Your task to perform on an android device: Open CNN.com Image 0: 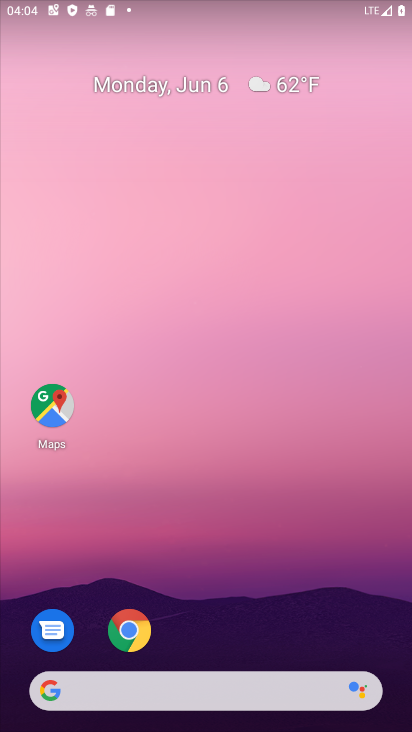
Step 0: click (126, 641)
Your task to perform on an android device: Open CNN.com Image 1: 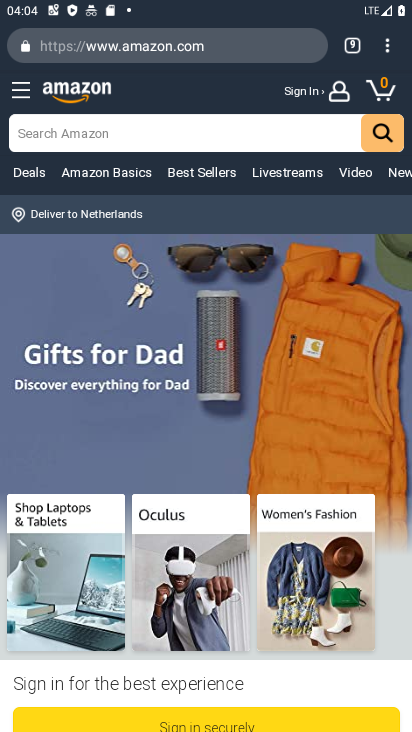
Step 1: click (200, 41)
Your task to perform on an android device: Open CNN.com Image 2: 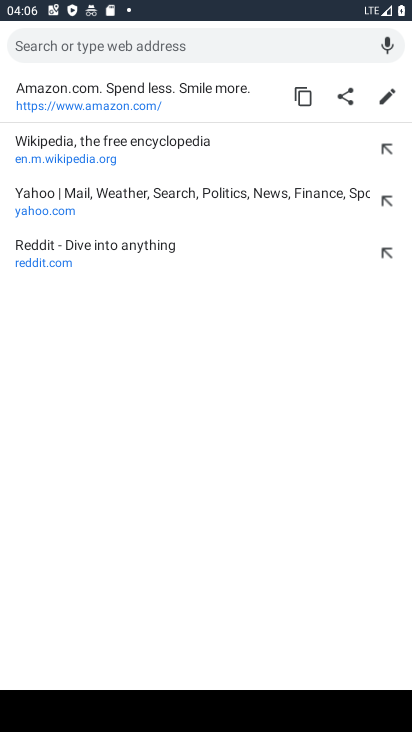
Step 2: type " CNN.com"
Your task to perform on an android device: Open CNN.com Image 3: 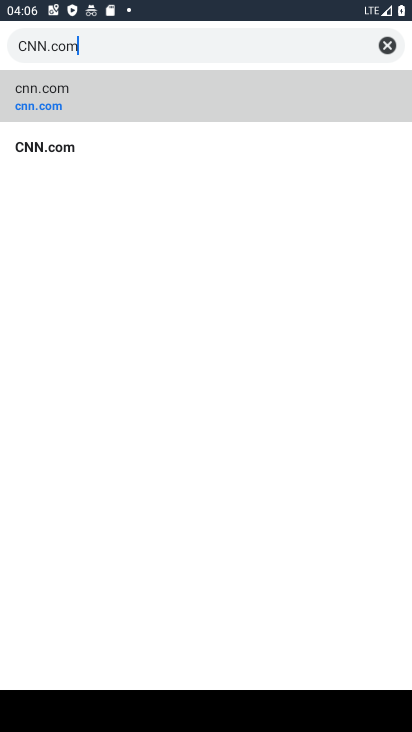
Step 3: type ""
Your task to perform on an android device: Open CNN.com Image 4: 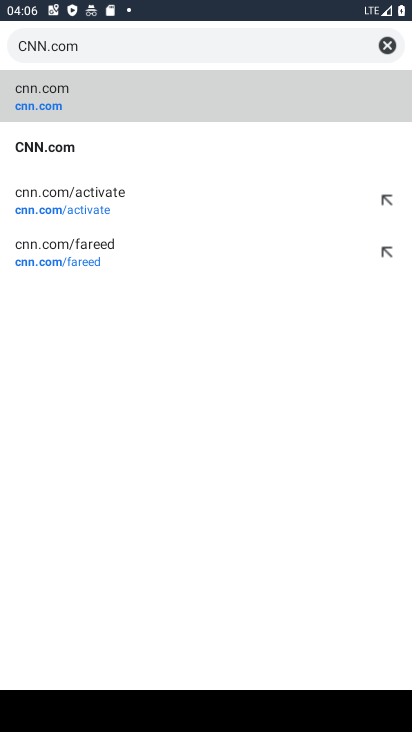
Step 4: click (133, 94)
Your task to perform on an android device: Open CNN.com Image 5: 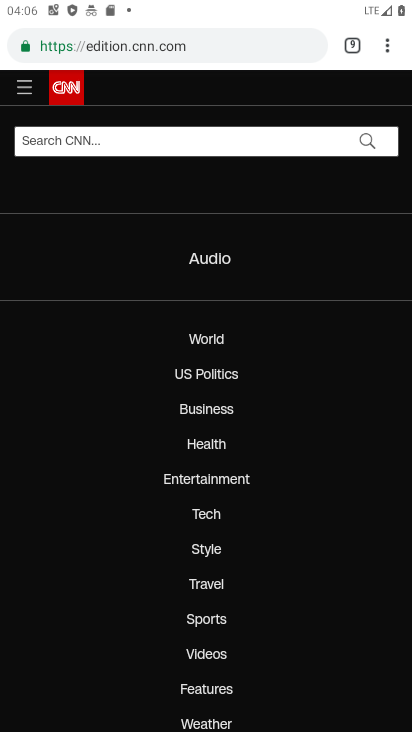
Step 5: task complete